Your task to perform on an android device: Open wifi settings Image 0: 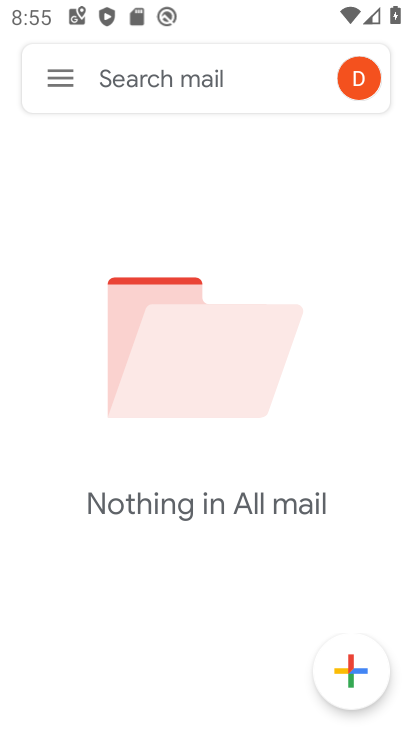
Step 0: press back button
Your task to perform on an android device: Open wifi settings Image 1: 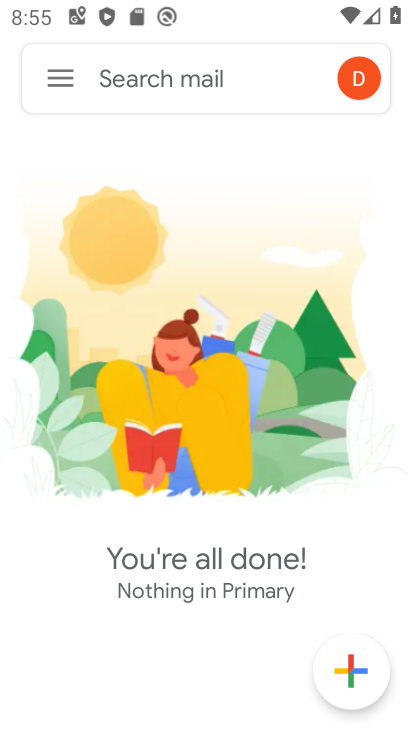
Step 1: press home button
Your task to perform on an android device: Open wifi settings Image 2: 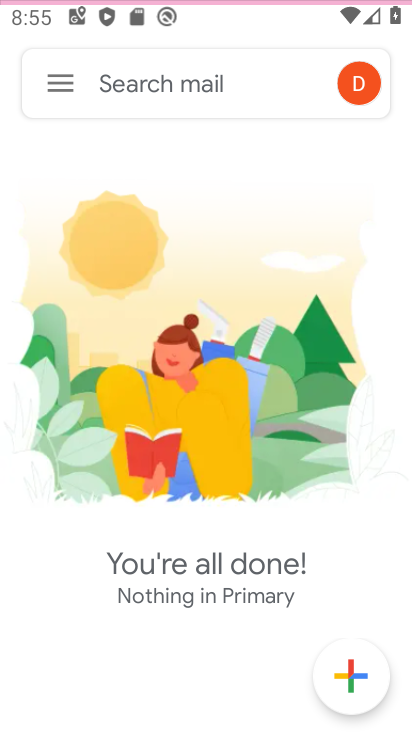
Step 2: press home button
Your task to perform on an android device: Open wifi settings Image 3: 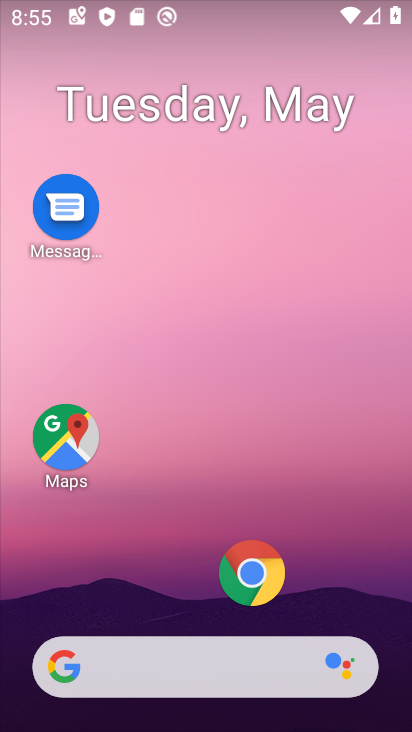
Step 3: drag from (327, 444) to (204, 157)
Your task to perform on an android device: Open wifi settings Image 4: 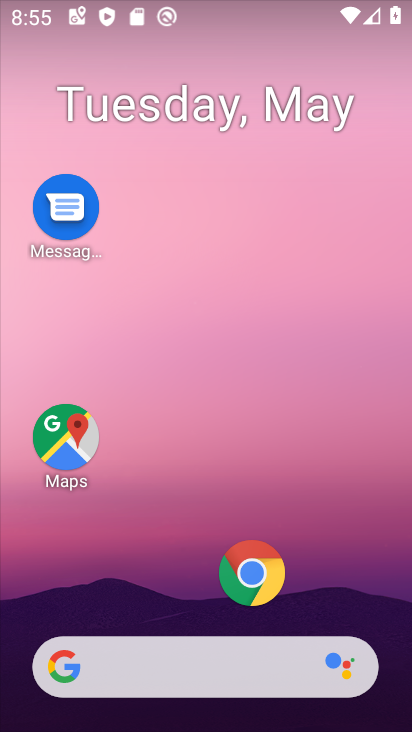
Step 4: drag from (291, 643) to (60, 116)
Your task to perform on an android device: Open wifi settings Image 5: 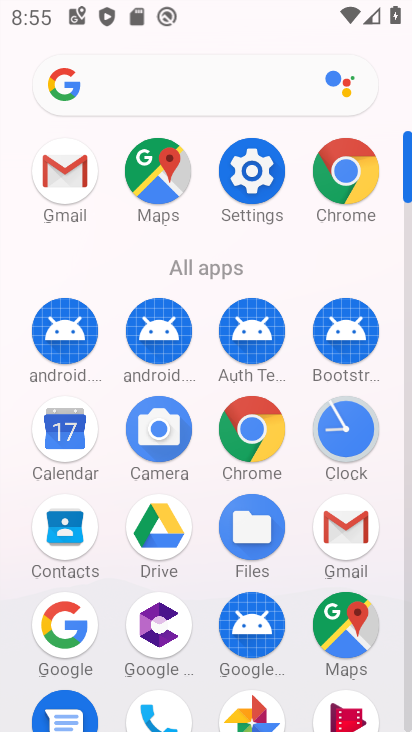
Step 5: click (257, 172)
Your task to perform on an android device: Open wifi settings Image 6: 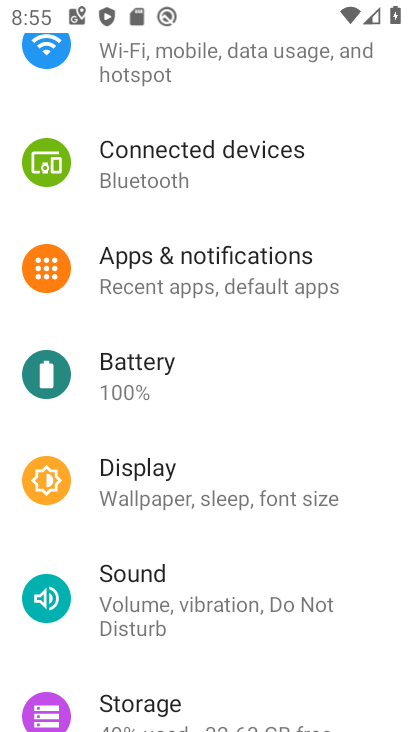
Step 6: drag from (176, 161) to (231, 604)
Your task to perform on an android device: Open wifi settings Image 7: 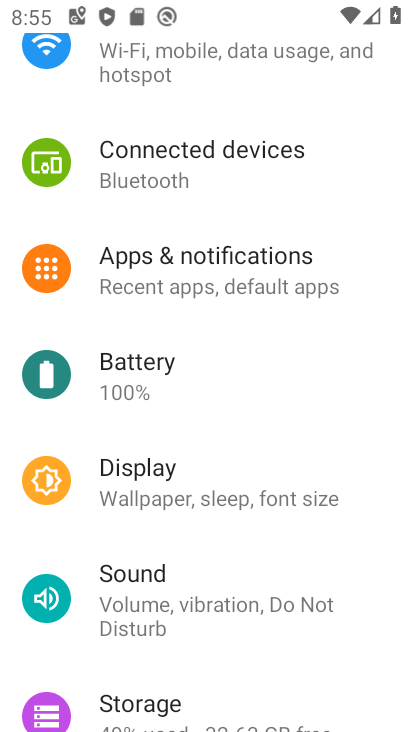
Step 7: drag from (124, 191) to (228, 642)
Your task to perform on an android device: Open wifi settings Image 8: 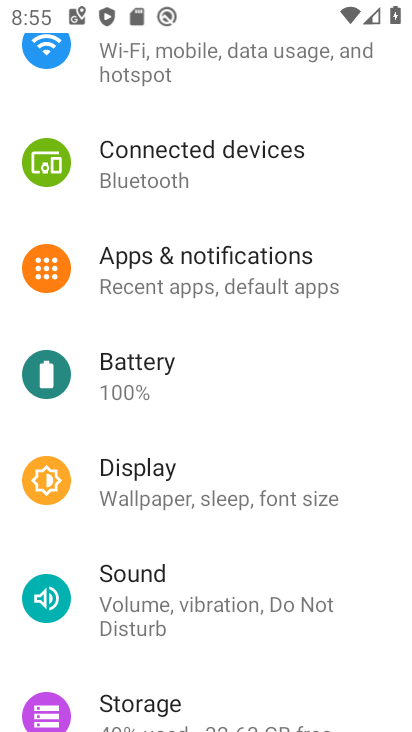
Step 8: drag from (230, 196) to (235, 616)
Your task to perform on an android device: Open wifi settings Image 9: 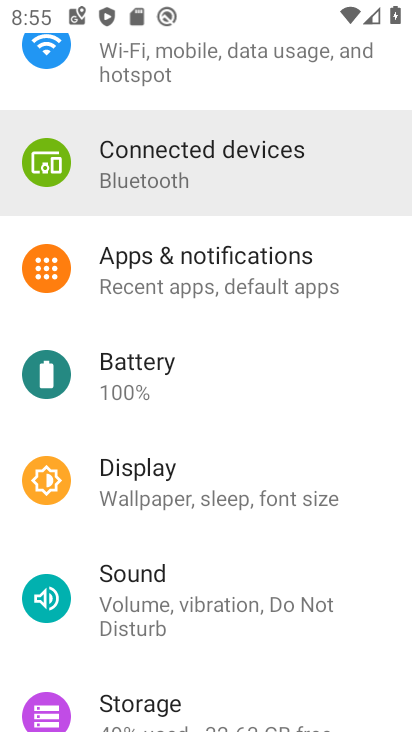
Step 9: drag from (216, 150) to (292, 545)
Your task to perform on an android device: Open wifi settings Image 10: 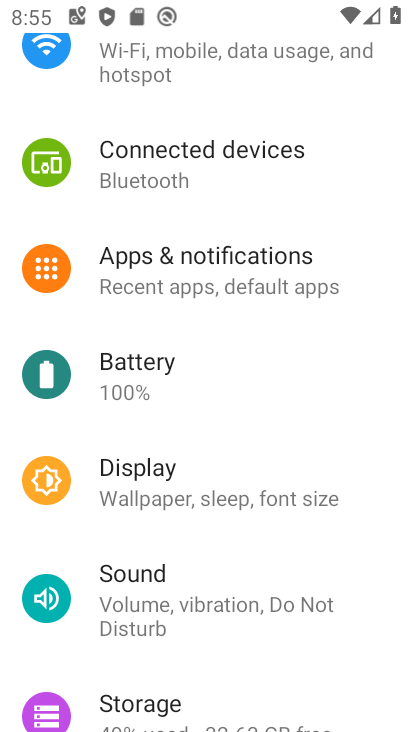
Step 10: drag from (149, 107) to (166, 452)
Your task to perform on an android device: Open wifi settings Image 11: 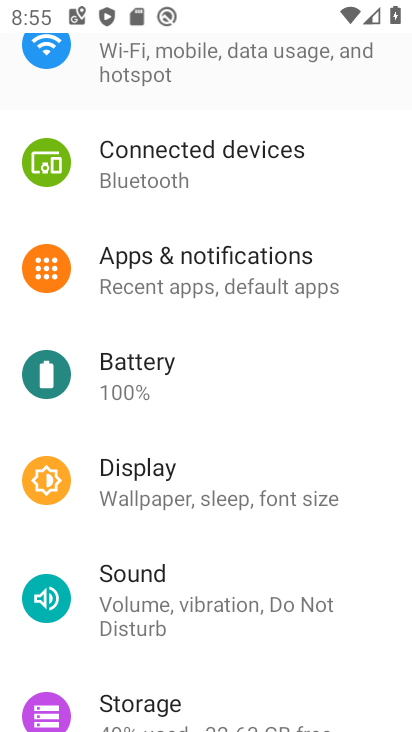
Step 11: drag from (38, 182) to (38, 543)
Your task to perform on an android device: Open wifi settings Image 12: 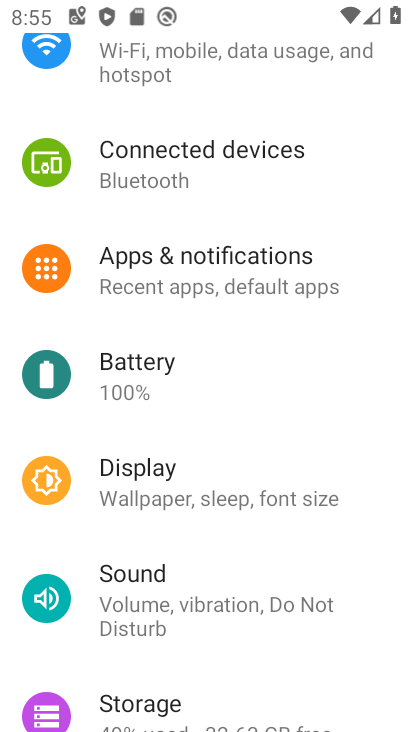
Step 12: drag from (269, 164) to (337, 568)
Your task to perform on an android device: Open wifi settings Image 13: 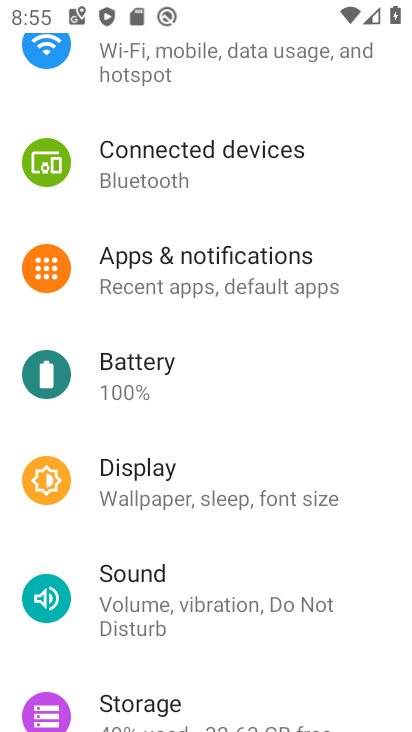
Step 13: drag from (368, 117) to (360, 624)
Your task to perform on an android device: Open wifi settings Image 14: 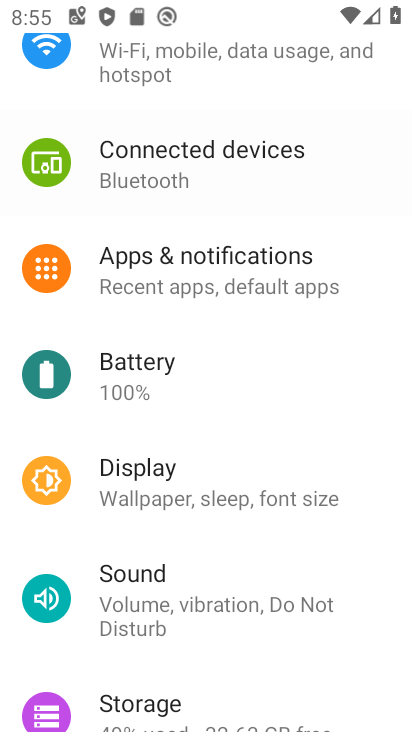
Step 14: drag from (297, 161) to (312, 398)
Your task to perform on an android device: Open wifi settings Image 15: 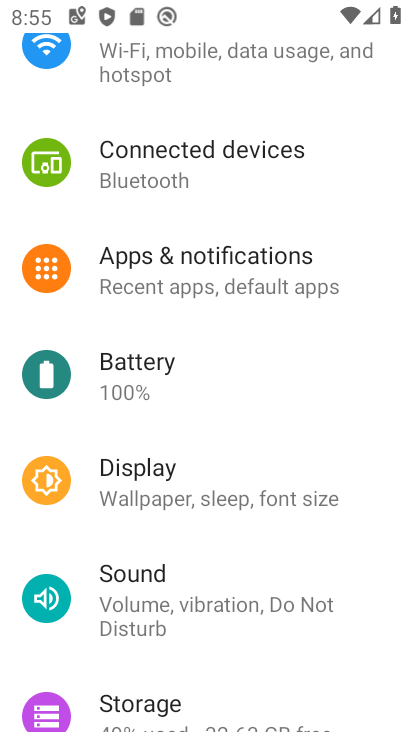
Step 15: drag from (209, 117) to (212, 635)
Your task to perform on an android device: Open wifi settings Image 16: 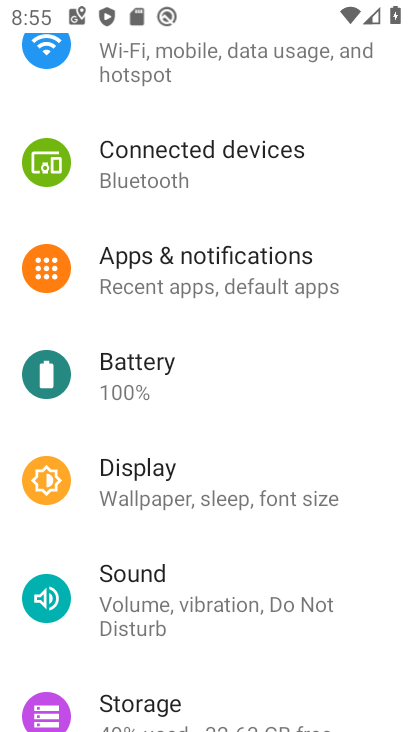
Step 16: click (219, 45)
Your task to perform on an android device: Open wifi settings Image 17: 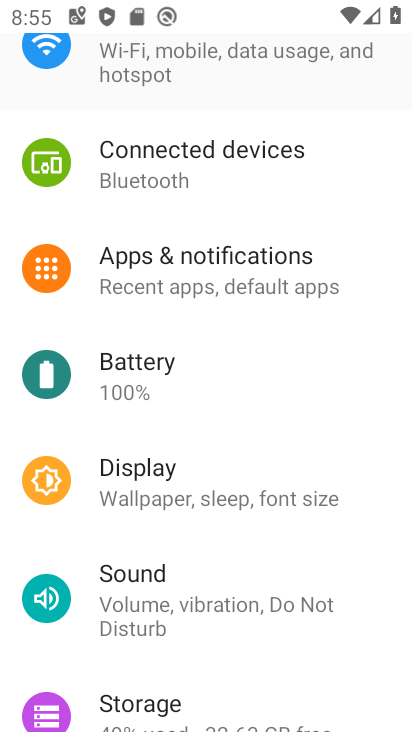
Step 17: click (214, 51)
Your task to perform on an android device: Open wifi settings Image 18: 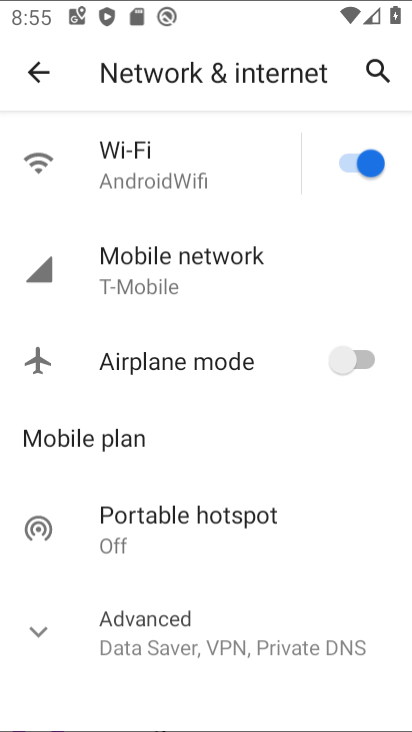
Step 18: click (214, 51)
Your task to perform on an android device: Open wifi settings Image 19: 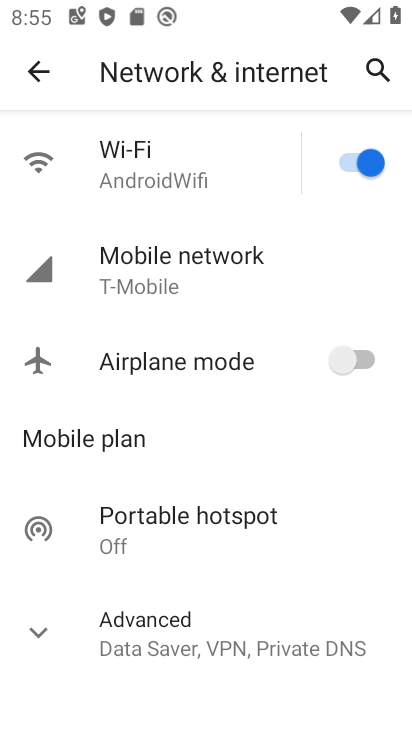
Step 19: click (214, 51)
Your task to perform on an android device: Open wifi settings Image 20: 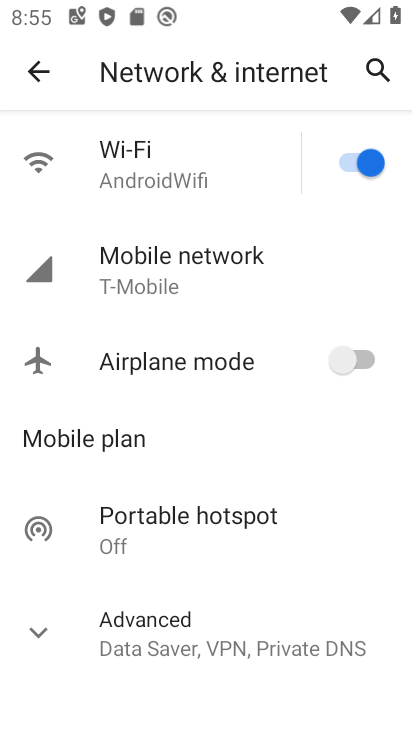
Step 20: task complete